Your task to perform on an android device: open app "VLC for Android" (install if not already installed) and enter user name: "Yves@outlook.com" and password: "internally" Image 0: 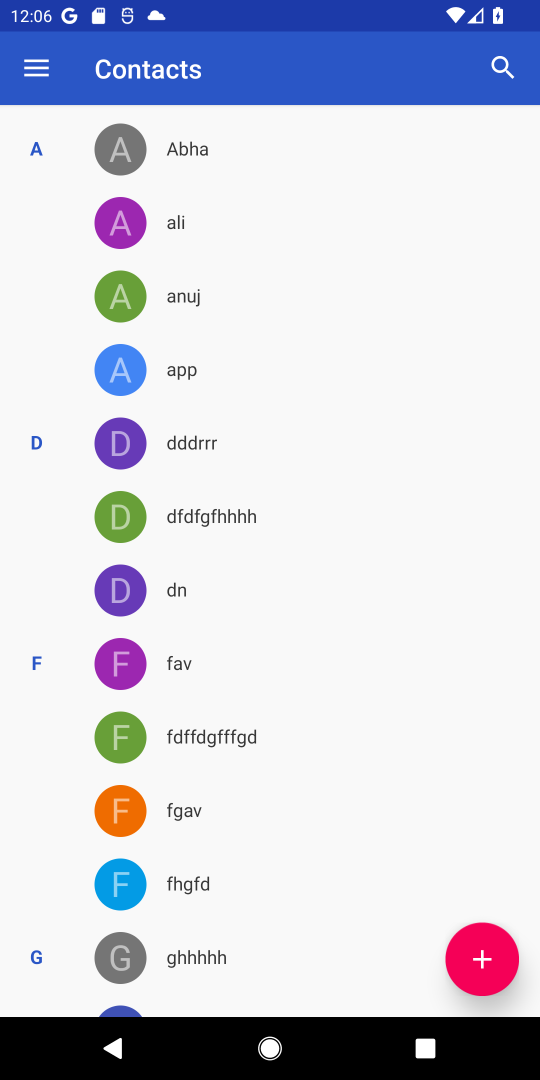
Step 0: press home button
Your task to perform on an android device: open app "VLC for Android" (install if not already installed) and enter user name: "Yves@outlook.com" and password: "internally" Image 1: 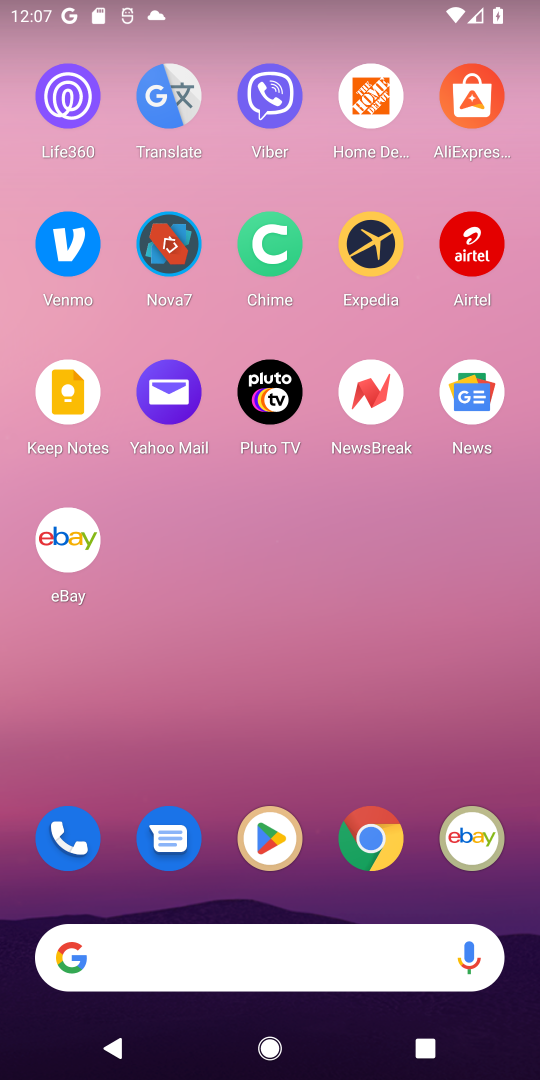
Step 1: click (255, 830)
Your task to perform on an android device: open app "VLC for Android" (install if not already installed) and enter user name: "Yves@outlook.com" and password: "internally" Image 2: 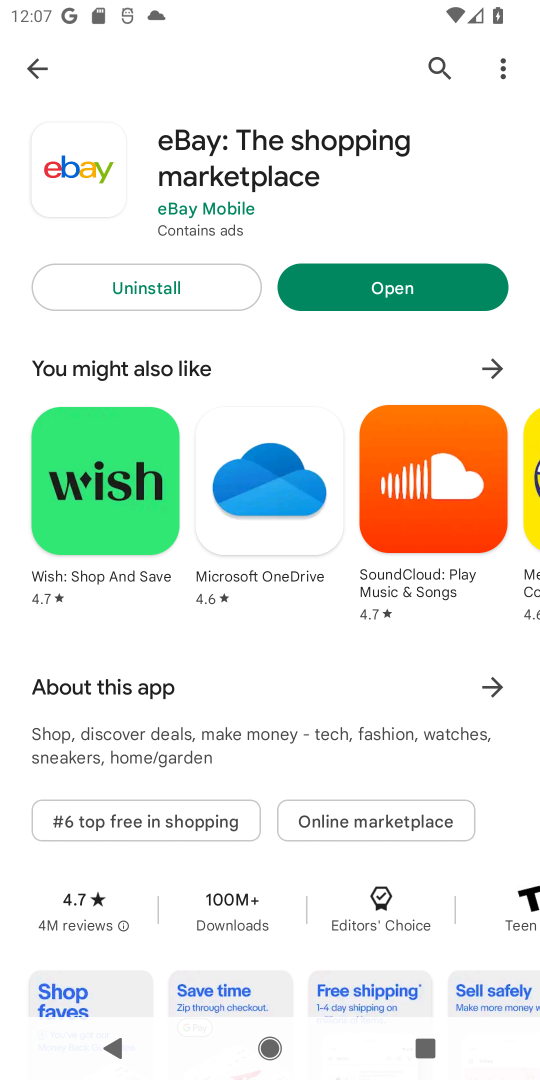
Step 2: click (429, 61)
Your task to perform on an android device: open app "VLC for Android" (install if not already installed) and enter user name: "Yves@outlook.com" and password: "internally" Image 3: 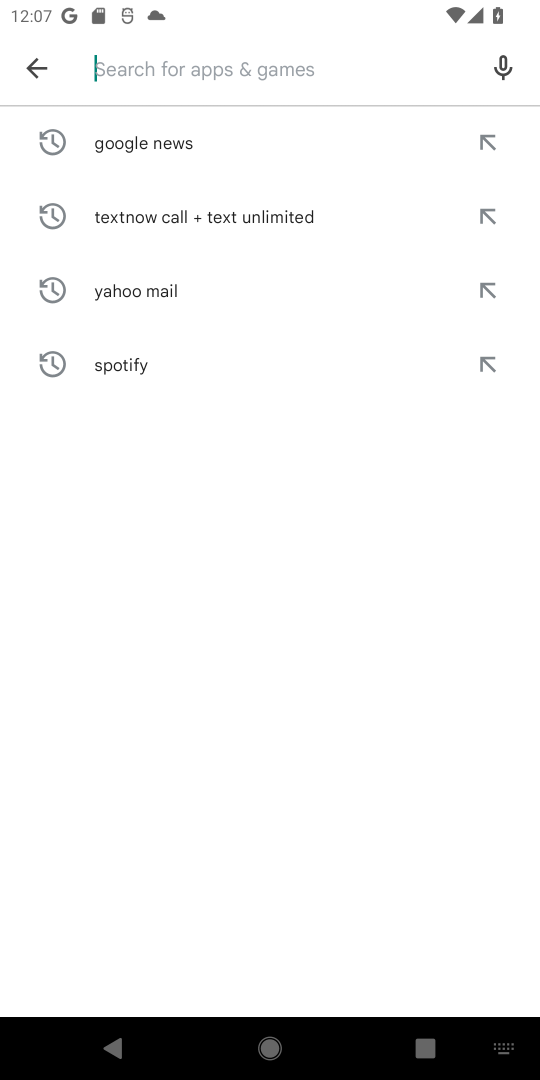
Step 3: type "VLC for Android"
Your task to perform on an android device: open app "VLC for Android" (install if not already installed) and enter user name: "Yves@outlook.com" and password: "internally" Image 4: 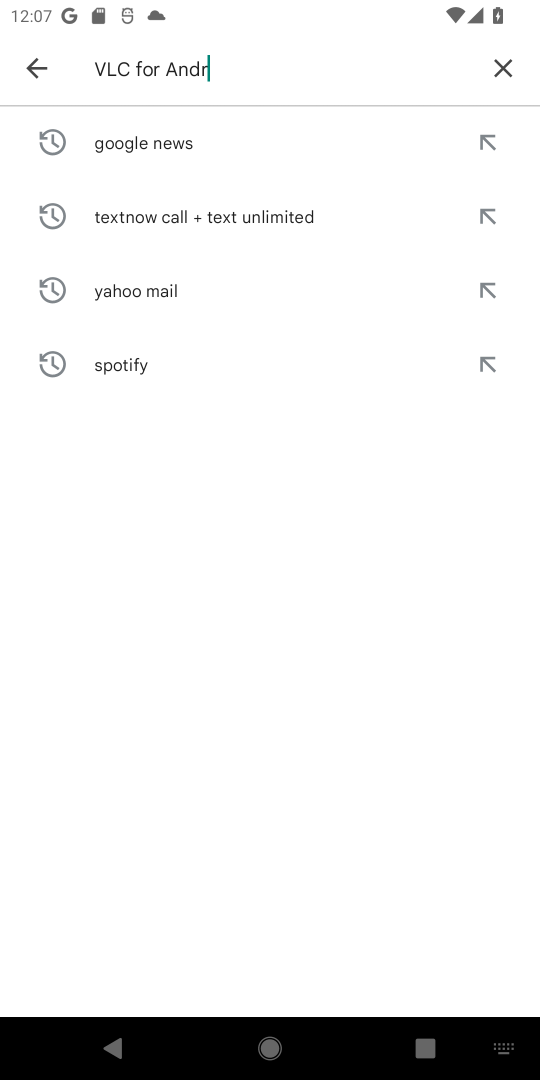
Step 4: type ""
Your task to perform on an android device: open app "VLC for Android" (install if not already installed) and enter user name: "Yves@outlook.com" and password: "internally" Image 5: 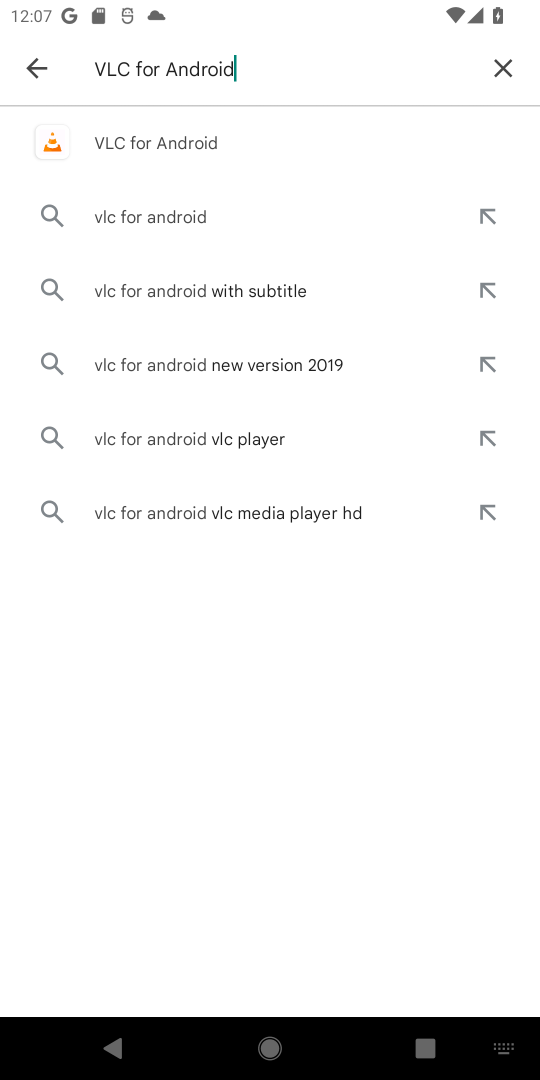
Step 5: click (236, 145)
Your task to perform on an android device: open app "VLC for Android" (install if not already installed) and enter user name: "Yves@outlook.com" and password: "internally" Image 6: 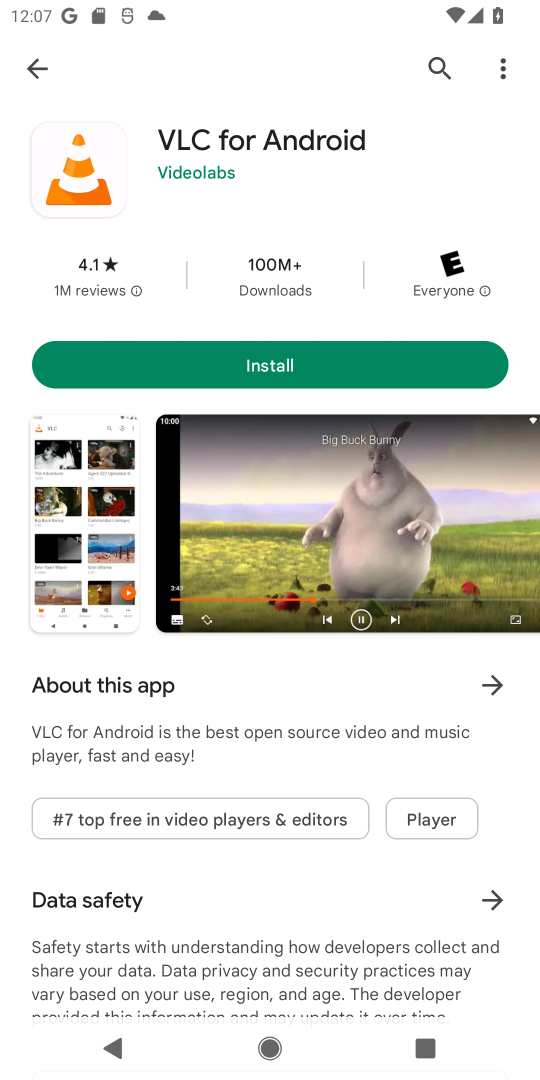
Step 6: click (298, 350)
Your task to perform on an android device: open app "VLC for Android" (install if not already installed) and enter user name: "Yves@outlook.com" and password: "internally" Image 7: 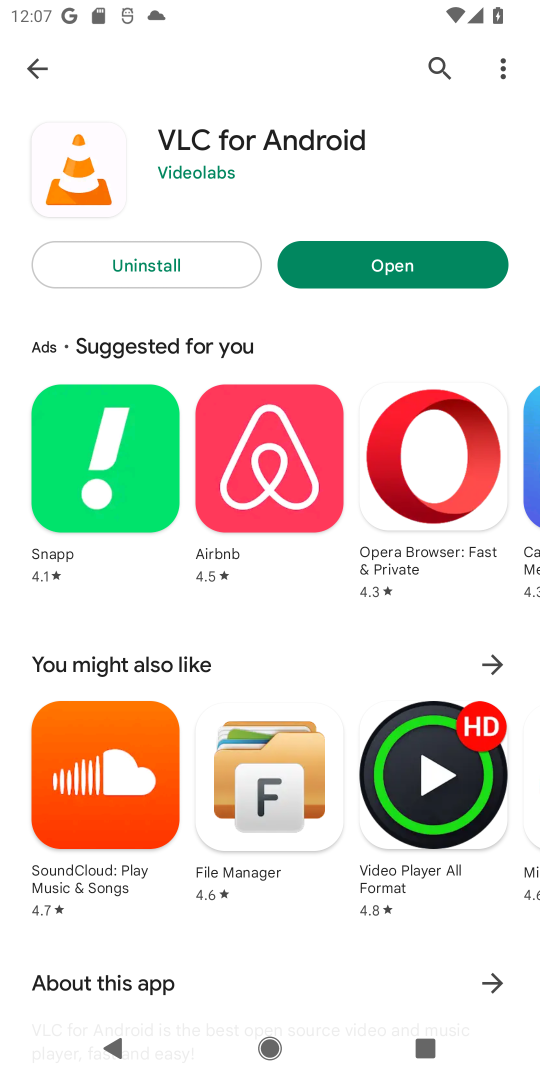
Step 7: click (407, 248)
Your task to perform on an android device: open app "VLC for Android" (install if not already installed) and enter user name: "Yves@outlook.com" and password: "internally" Image 8: 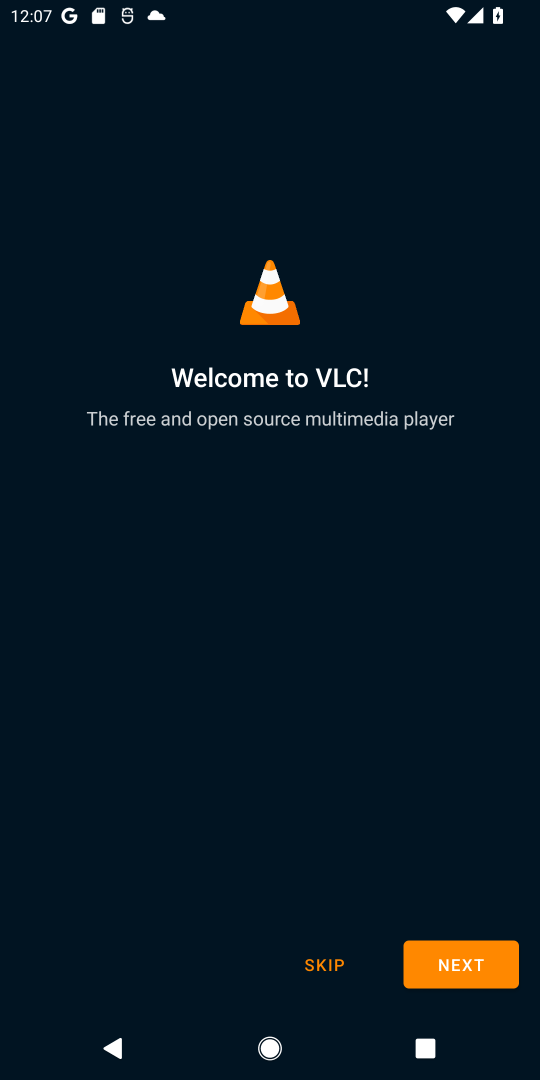
Step 8: task complete